Your task to perform on an android device: delete location history Image 0: 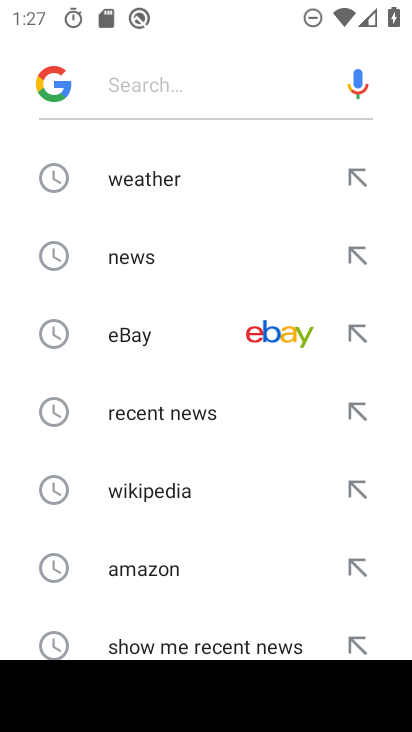
Step 0: press back button
Your task to perform on an android device: delete location history Image 1: 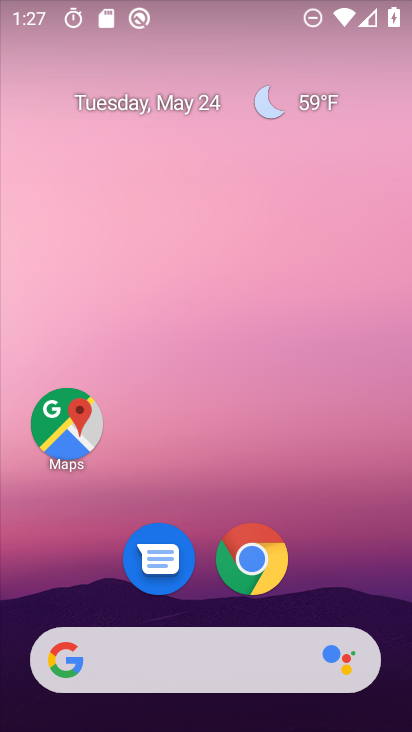
Step 1: drag from (396, 696) to (329, 228)
Your task to perform on an android device: delete location history Image 2: 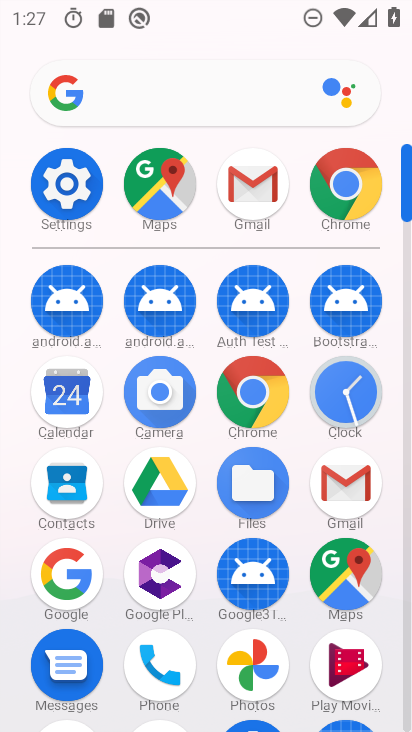
Step 2: click (65, 179)
Your task to perform on an android device: delete location history Image 3: 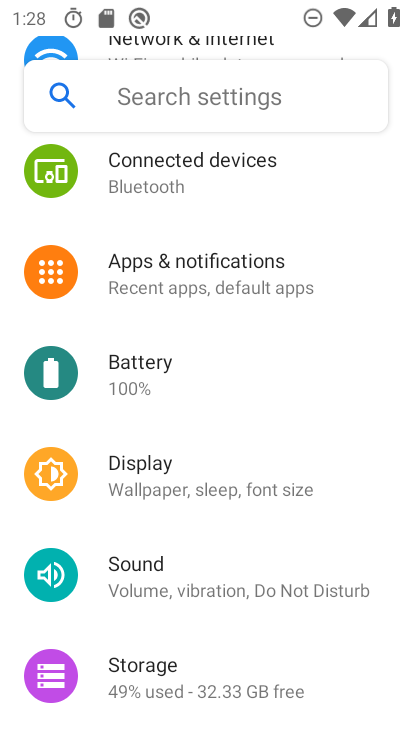
Step 3: press home button
Your task to perform on an android device: delete location history Image 4: 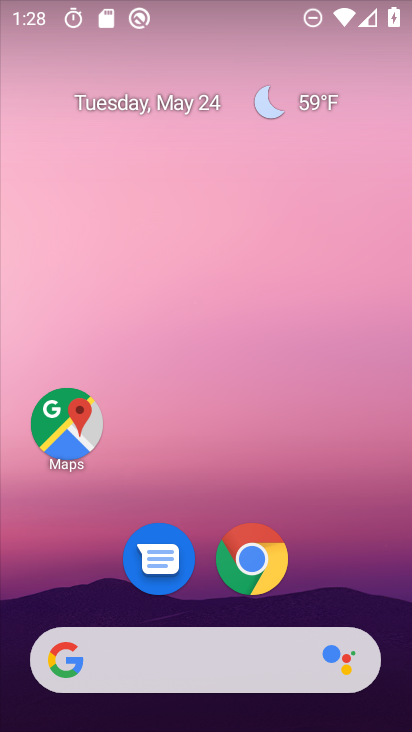
Step 4: click (60, 424)
Your task to perform on an android device: delete location history Image 5: 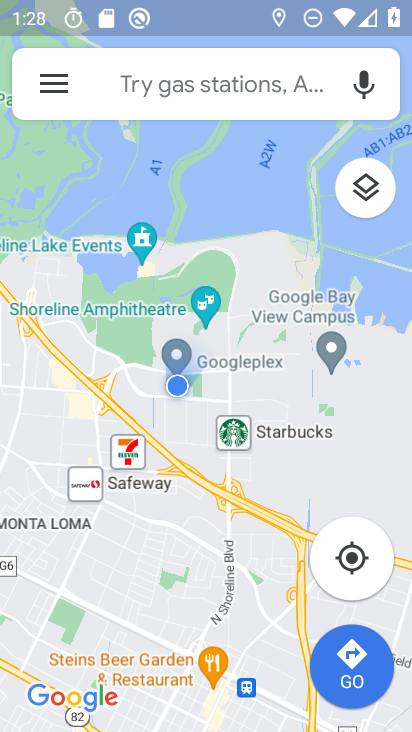
Step 5: click (48, 85)
Your task to perform on an android device: delete location history Image 6: 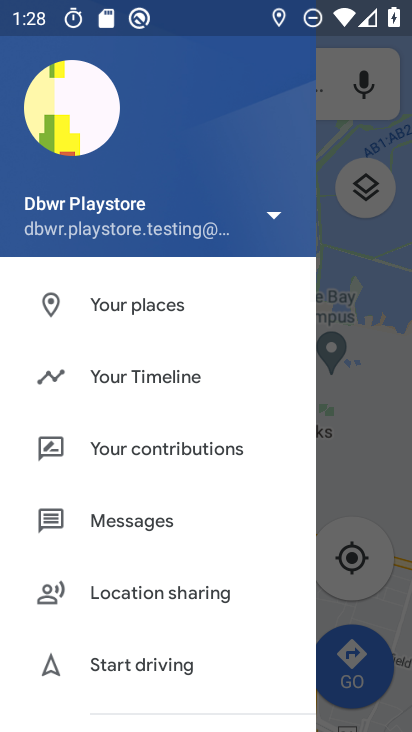
Step 6: click (125, 376)
Your task to perform on an android device: delete location history Image 7: 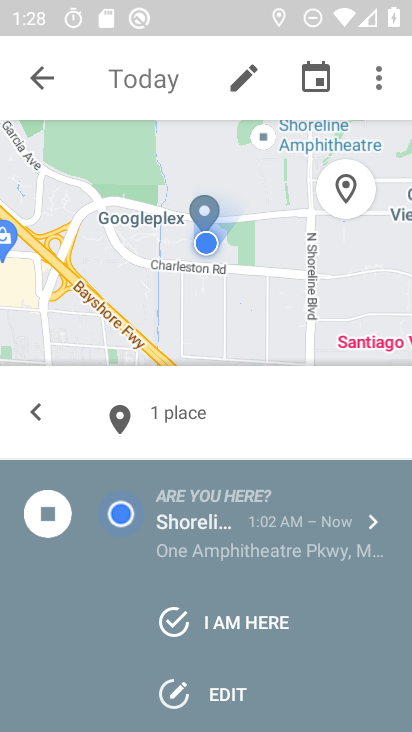
Step 7: click (377, 73)
Your task to perform on an android device: delete location history Image 8: 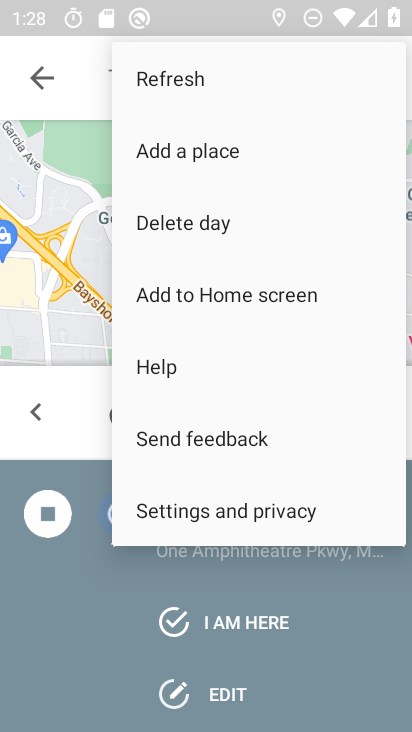
Step 8: click (224, 501)
Your task to perform on an android device: delete location history Image 9: 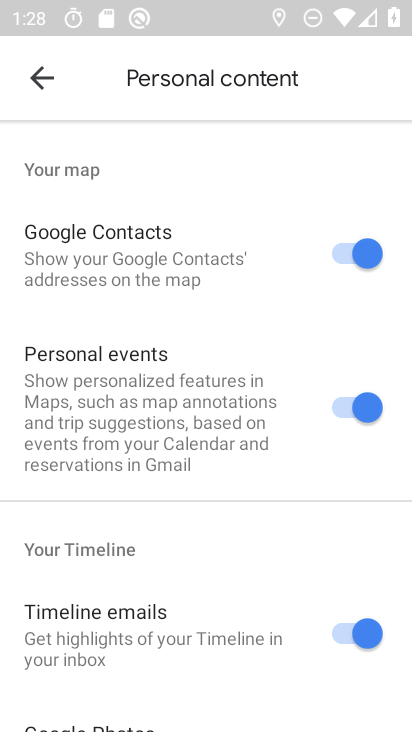
Step 9: drag from (259, 685) to (204, 315)
Your task to perform on an android device: delete location history Image 10: 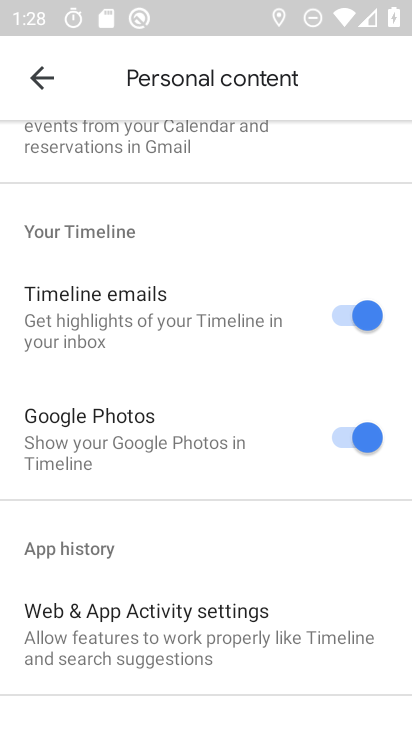
Step 10: drag from (287, 674) to (275, 272)
Your task to perform on an android device: delete location history Image 11: 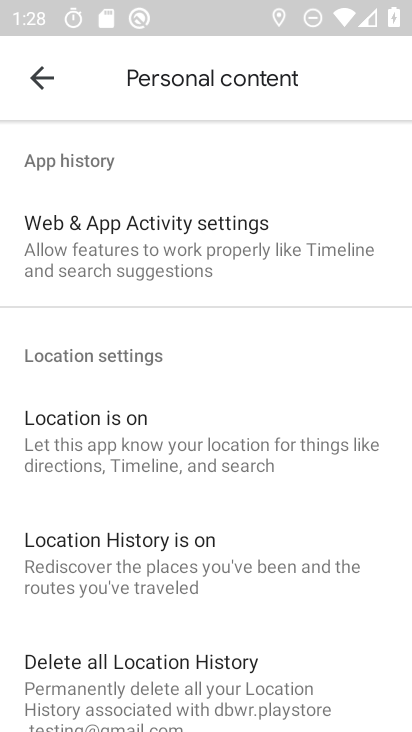
Step 11: click (99, 674)
Your task to perform on an android device: delete location history Image 12: 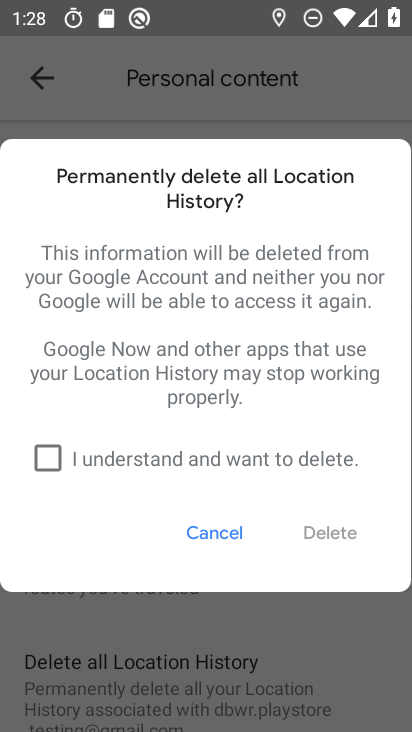
Step 12: click (35, 448)
Your task to perform on an android device: delete location history Image 13: 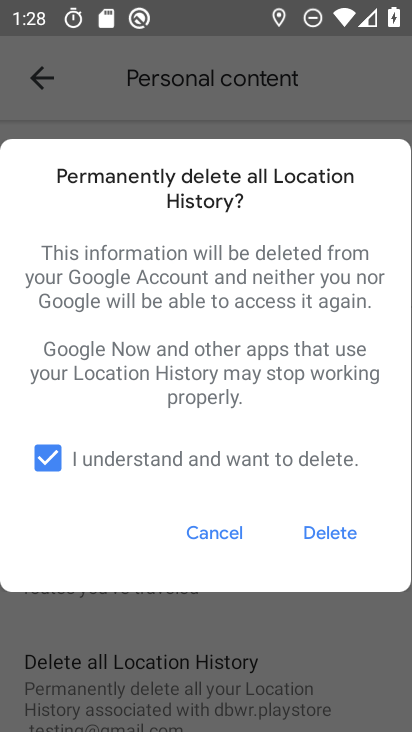
Step 13: click (331, 527)
Your task to perform on an android device: delete location history Image 14: 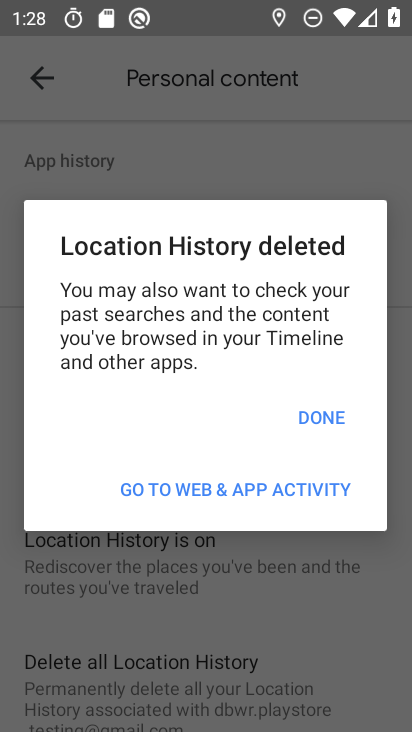
Step 14: click (304, 414)
Your task to perform on an android device: delete location history Image 15: 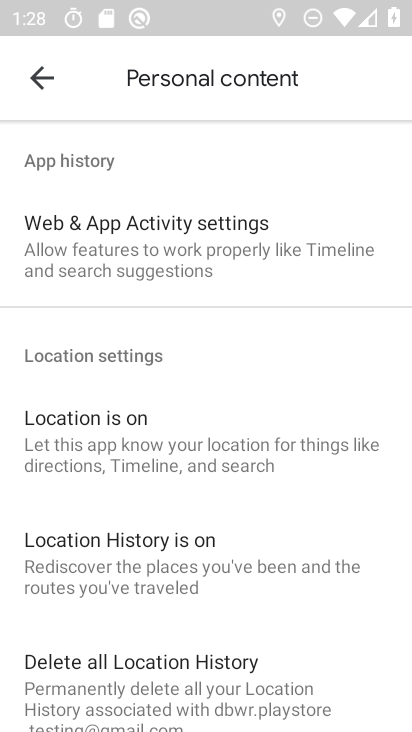
Step 15: task complete